Your task to perform on an android device: What's the top post on reddit today? Image 0: 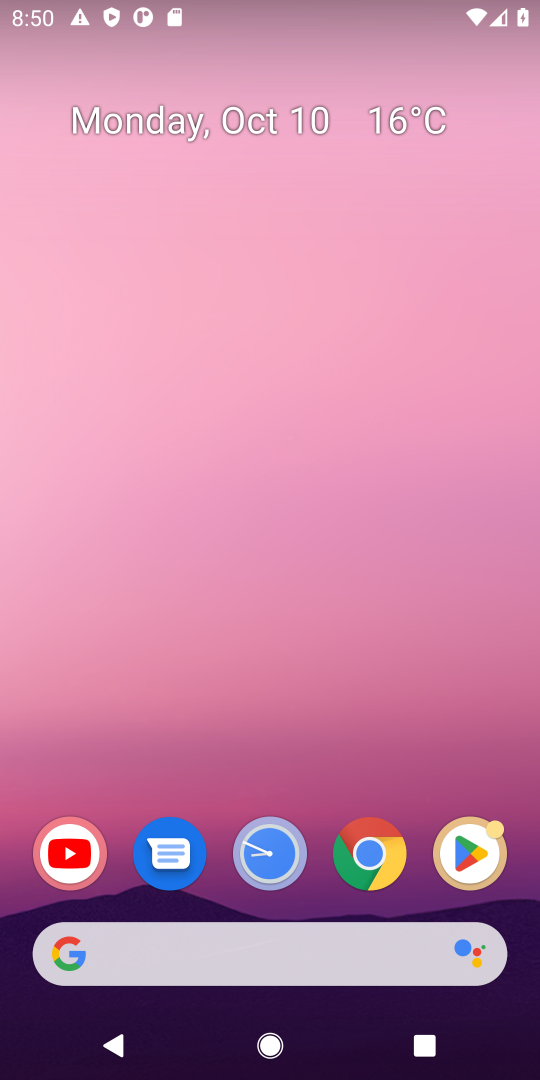
Step 0: click (387, 859)
Your task to perform on an android device: What's the top post on reddit today? Image 1: 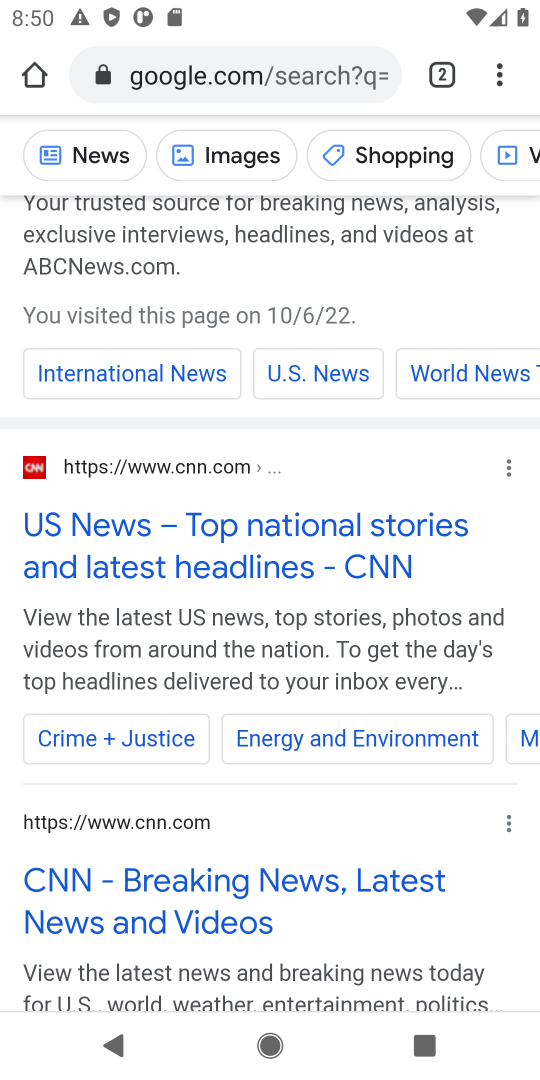
Step 1: drag from (244, 262) to (269, 793)
Your task to perform on an android device: What's the top post on reddit today? Image 2: 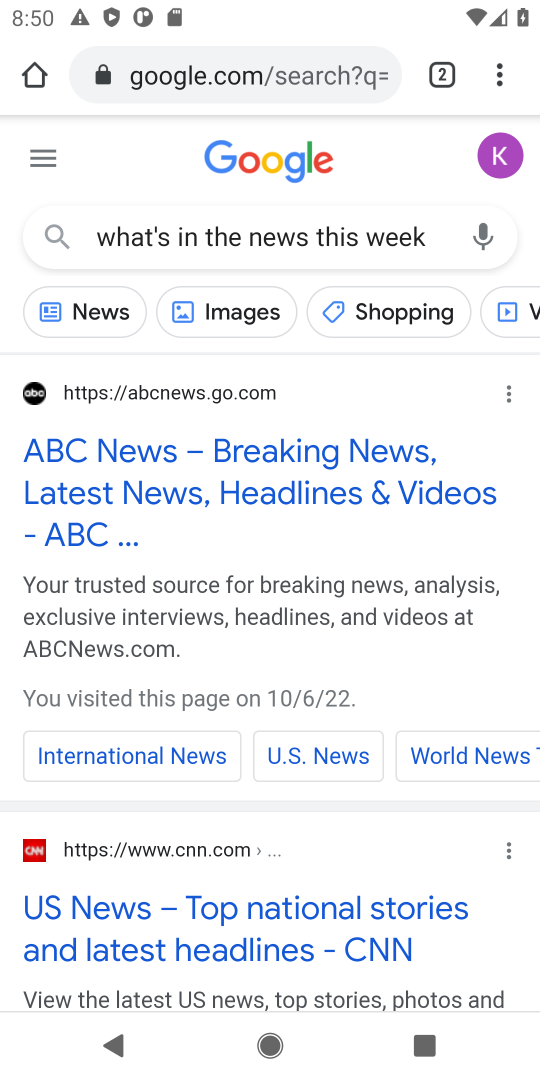
Step 2: click (266, 226)
Your task to perform on an android device: What's the top post on reddit today? Image 3: 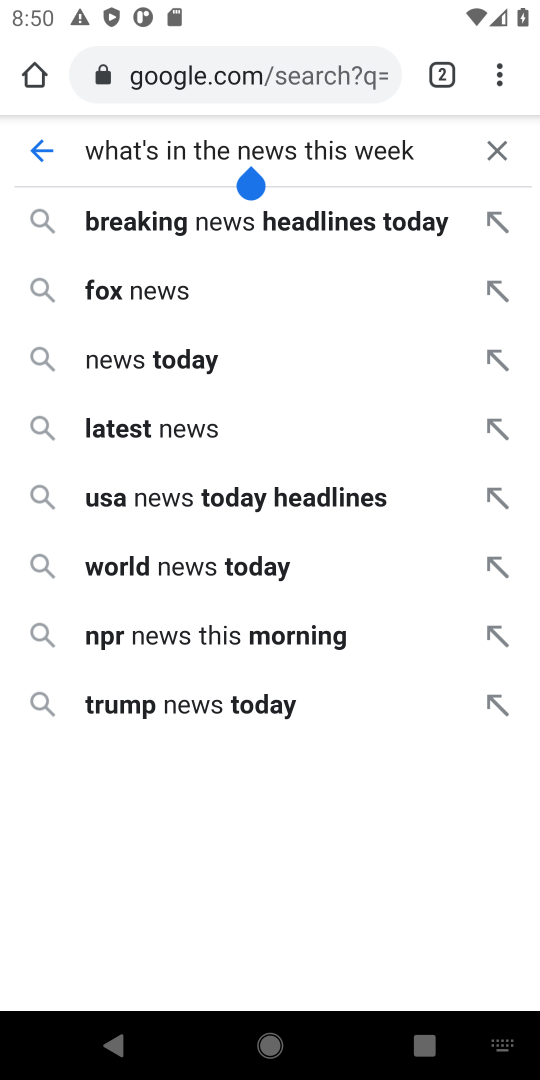
Step 3: click (500, 137)
Your task to perform on an android device: What's the top post on reddit today? Image 4: 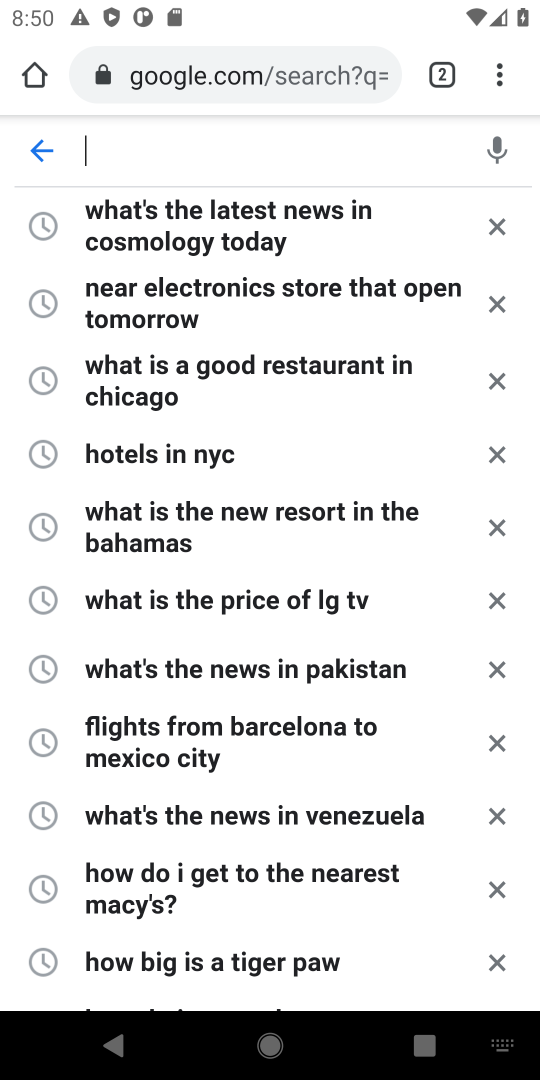
Step 4: type "What's the top post on reddit today?"
Your task to perform on an android device: What's the top post on reddit today? Image 5: 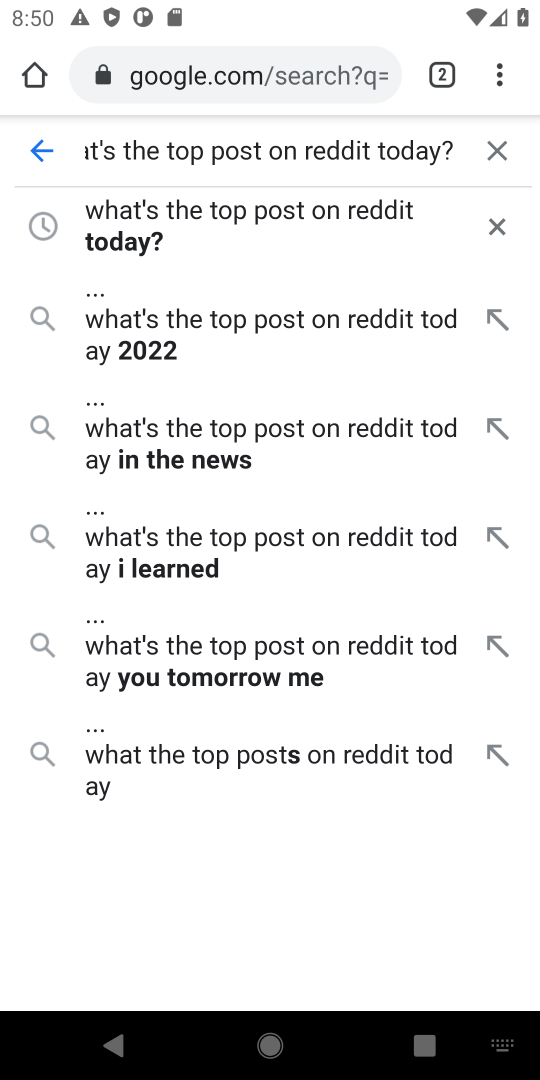
Step 5: click (179, 222)
Your task to perform on an android device: What's the top post on reddit today? Image 6: 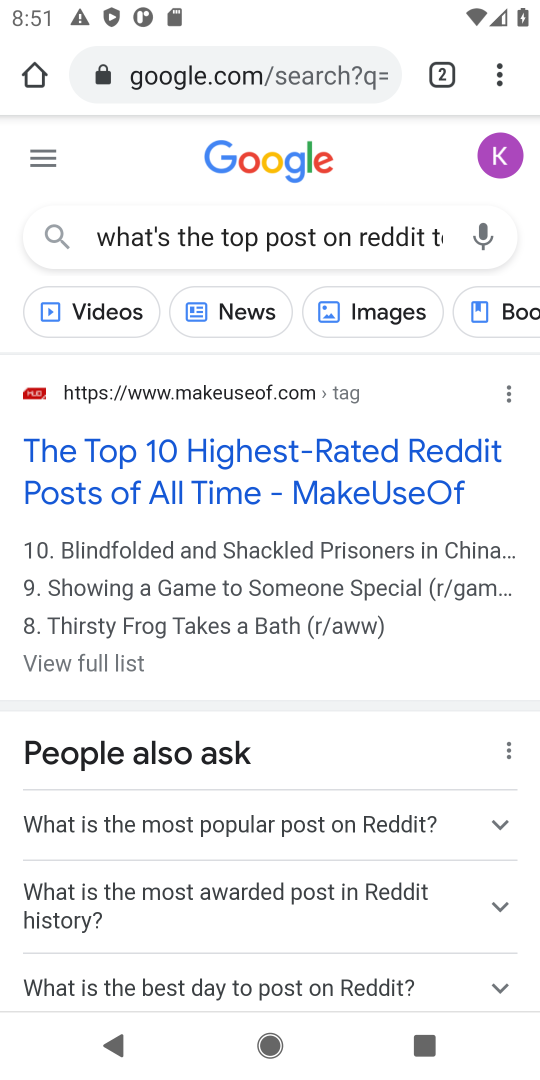
Step 6: task complete